Your task to perform on an android device: What's the weather going to be this weekend? Image 0: 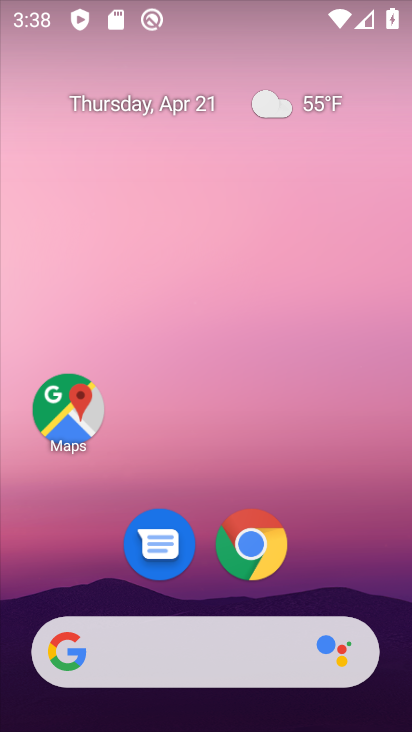
Step 0: drag from (214, 660) to (227, 54)
Your task to perform on an android device: What's the weather going to be this weekend? Image 1: 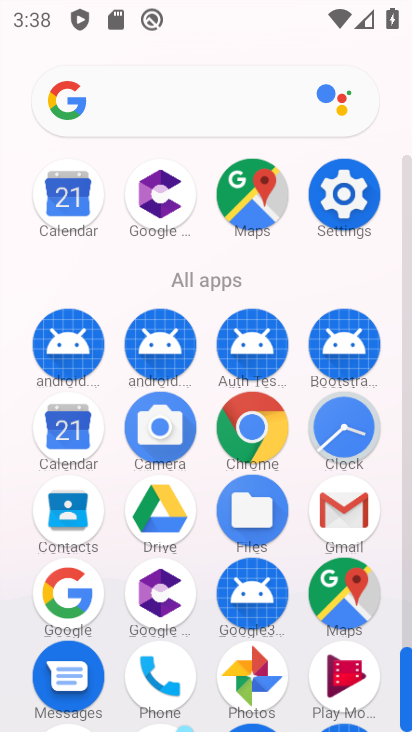
Step 1: click (46, 584)
Your task to perform on an android device: What's the weather going to be this weekend? Image 2: 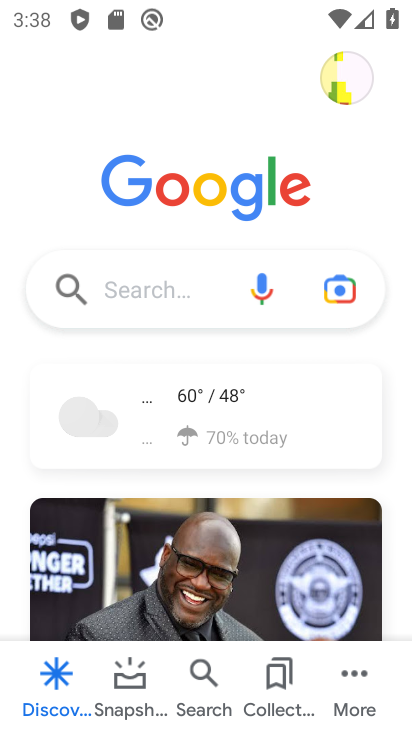
Step 2: click (246, 416)
Your task to perform on an android device: What's the weather going to be this weekend? Image 3: 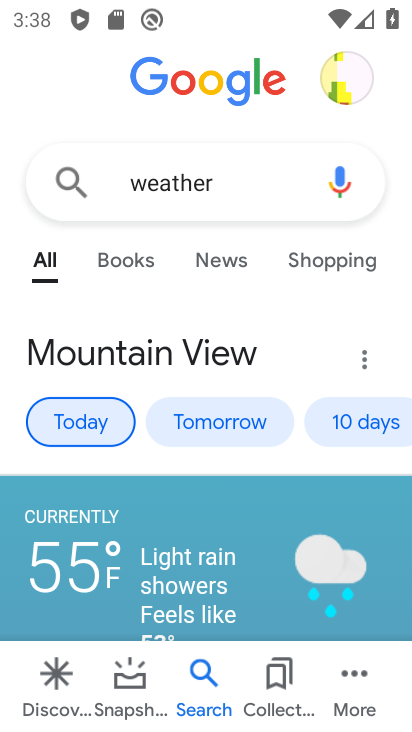
Step 3: click (350, 433)
Your task to perform on an android device: What's the weather going to be this weekend? Image 4: 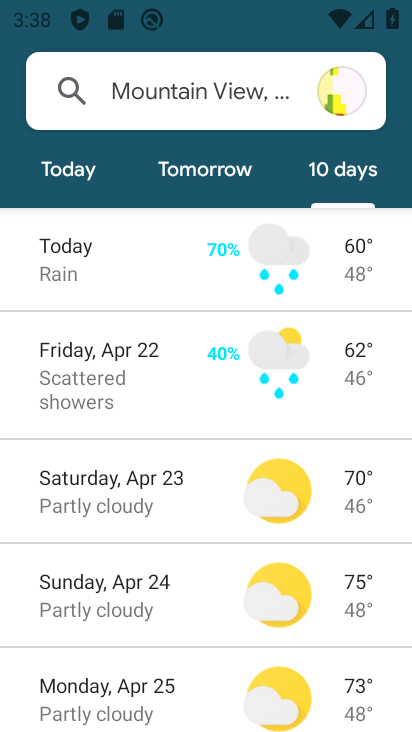
Step 4: task complete